Your task to perform on an android device: turn on translation in the chrome app Image 0: 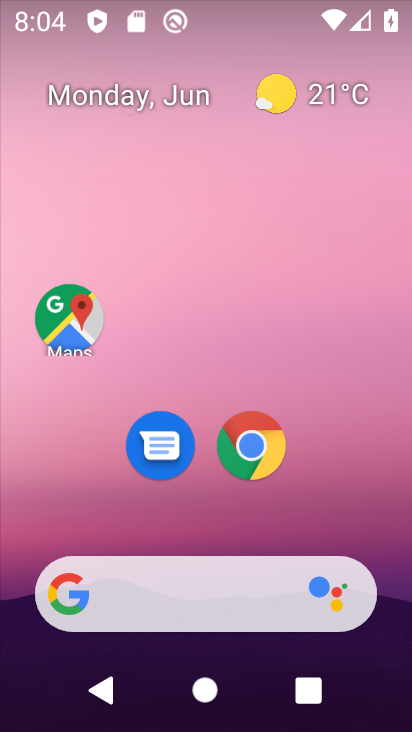
Step 0: click (265, 441)
Your task to perform on an android device: turn on translation in the chrome app Image 1: 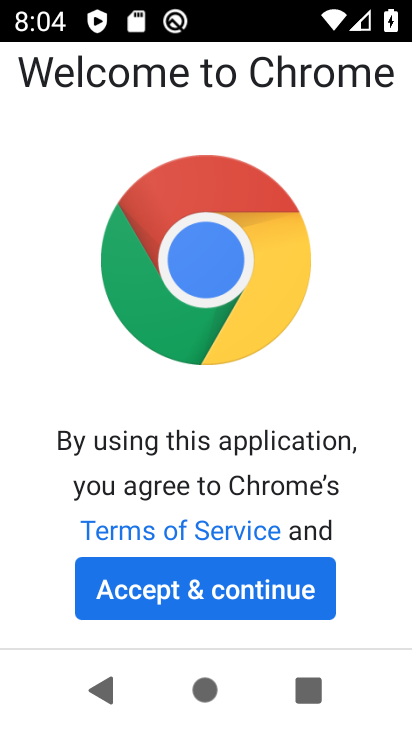
Step 1: click (147, 579)
Your task to perform on an android device: turn on translation in the chrome app Image 2: 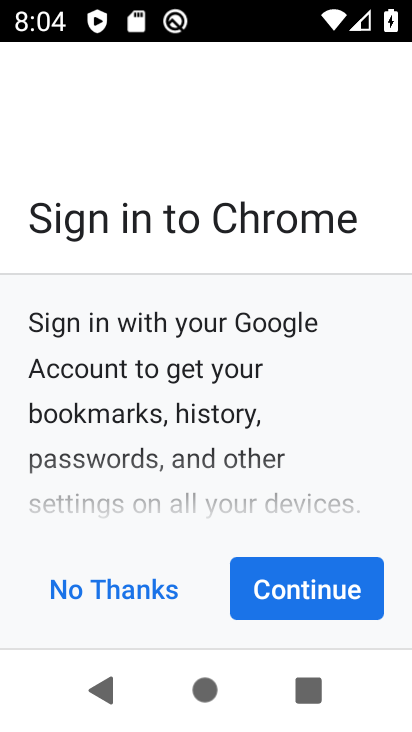
Step 2: click (279, 588)
Your task to perform on an android device: turn on translation in the chrome app Image 3: 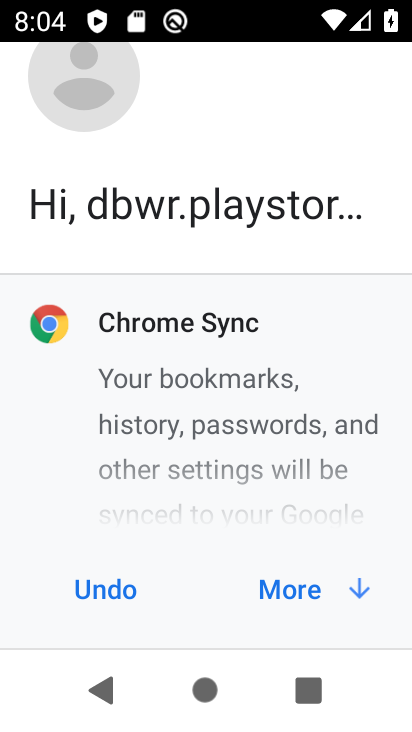
Step 3: click (280, 589)
Your task to perform on an android device: turn on translation in the chrome app Image 4: 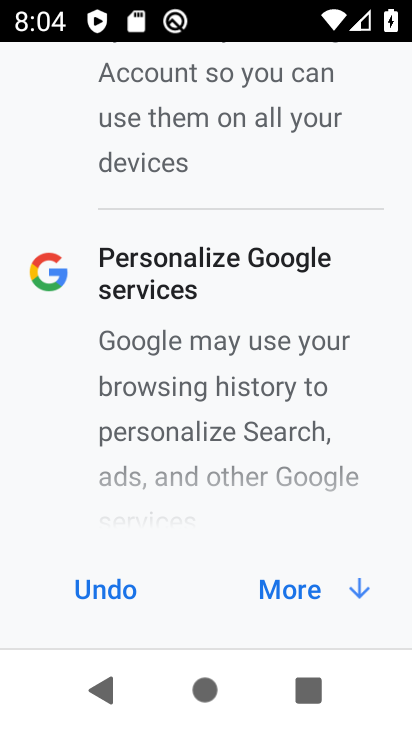
Step 4: click (280, 589)
Your task to perform on an android device: turn on translation in the chrome app Image 5: 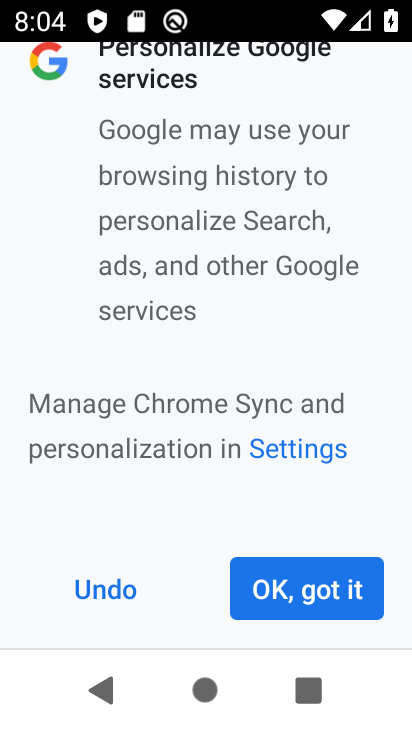
Step 5: click (280, 589)
Your task to perform on an android device: turn on translation in the chrome app Image 6: 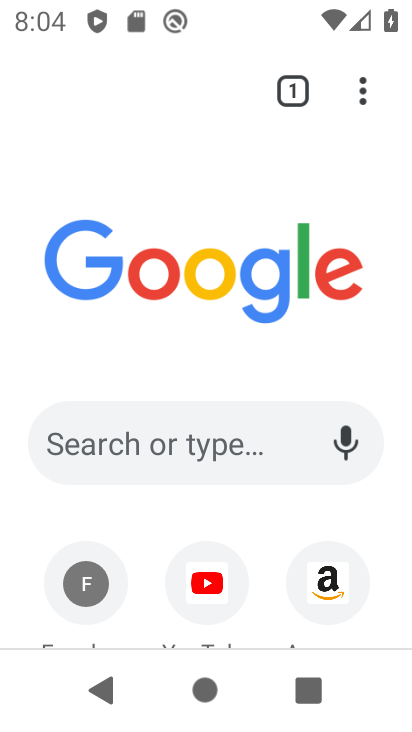
Step 6: click (365, 94)
Your task to perform on an android device: turn on translation in the chrome app Image 7: 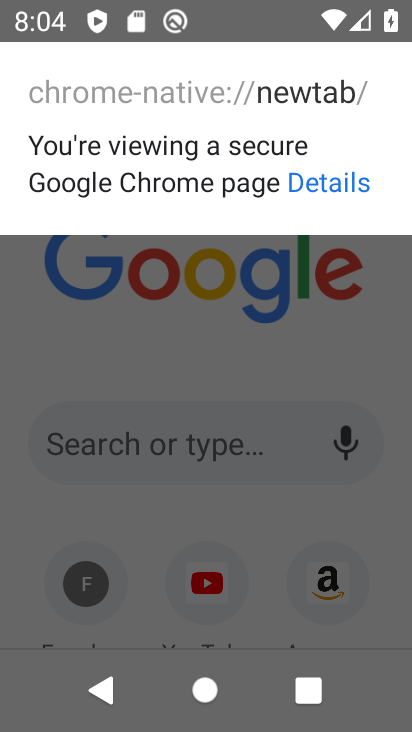
Step 7: click (285, 342)
Your task to perform on an android device: turn on translation in the chrome app Image 8: 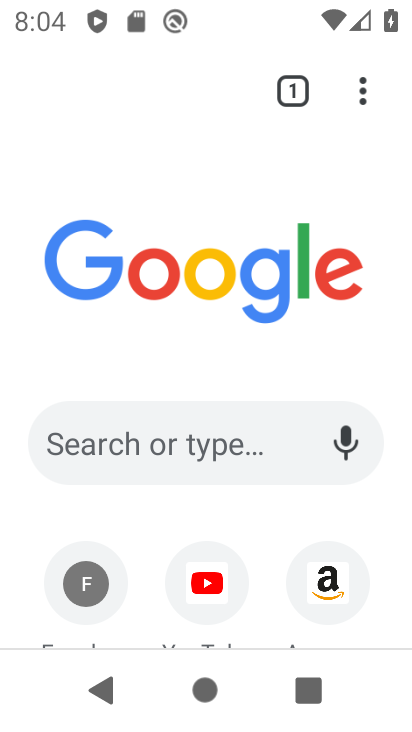
Step 8: click (356, 101)
Your task to perform on an android device: turn on translation in the chrome app Image 9: 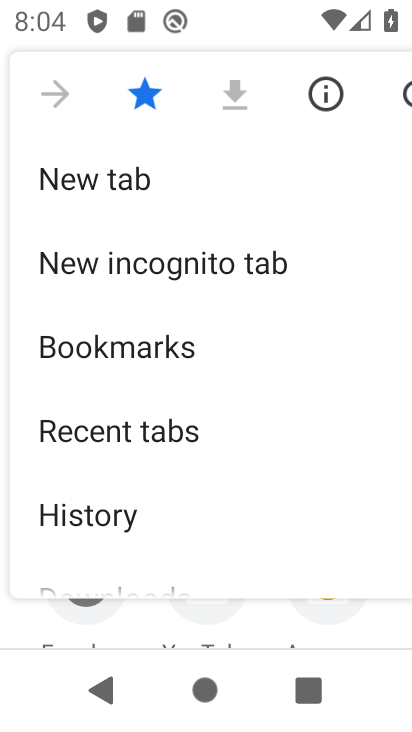
Step 9: drag from (95, 547) to (105, 176)
Your task to perform on an android device: turn on translation in the chrome app Image 10: 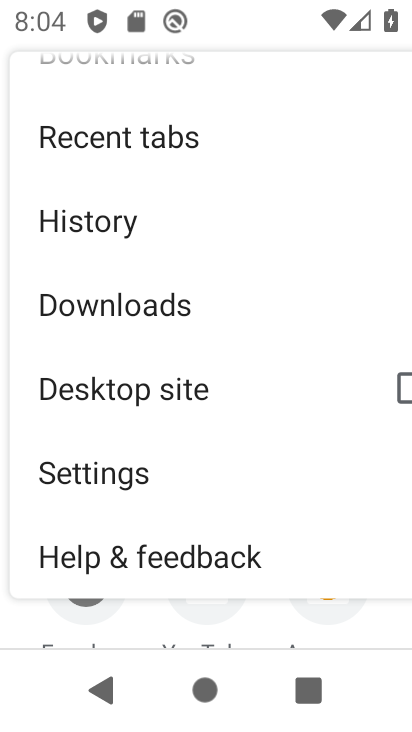
Step 10: click (166, 471)
Your task to perform on an android device: turn on translation in the chrome app Image 11: 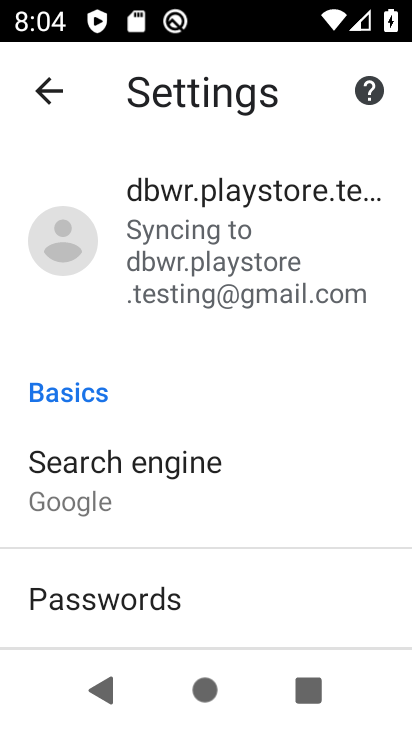
Step 11: drag from (161, 550) to (139, 204)
Your task to perform on an android device: turn on translation in the chrome app Image 12: 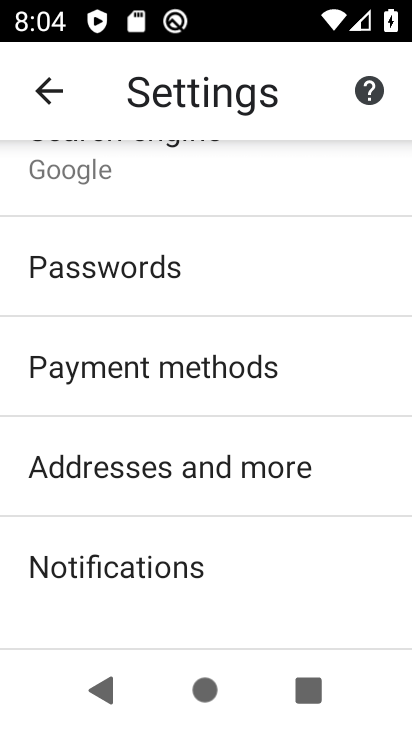
Step 12: drag from (254, 582) to (229, 279)
Your task to perform on an android device: turn on translation in the chrome app Image 13: 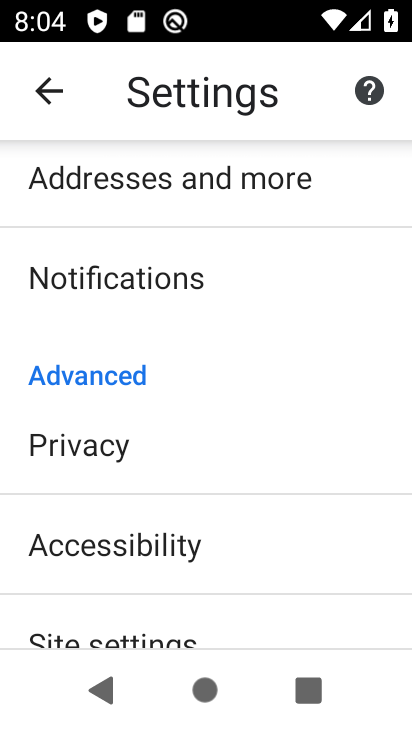
Step 13: drag from (269, 542) to (246, 362)
Your task to perform on an android device: turn on translation in the chrome app Image 14: 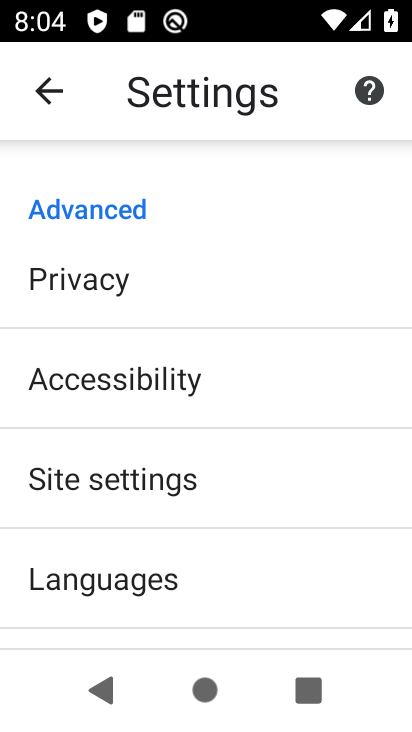
Step 14: click (214, 573)
Your task to perform on an android device: turn on translation in the chrome app Image 15: 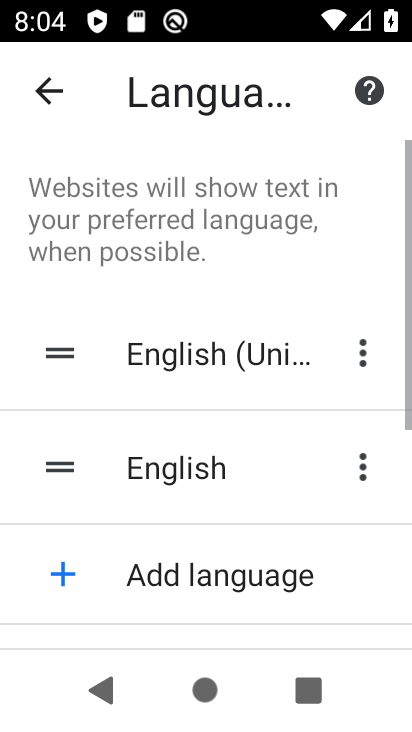
Step 15: task complete